Your task to perform on an android device: move a message to another label in the gmail app Image 0: 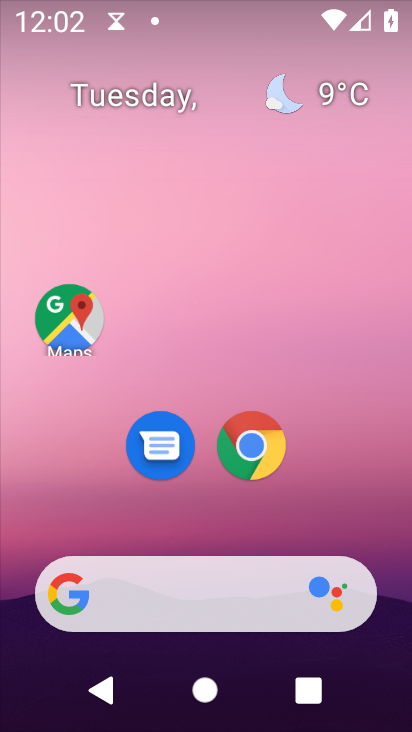
Step 0: drag from (288, 580) to (271, 14)
Your task to perform on an android device: move a message to another label in the gmail app Image 1: 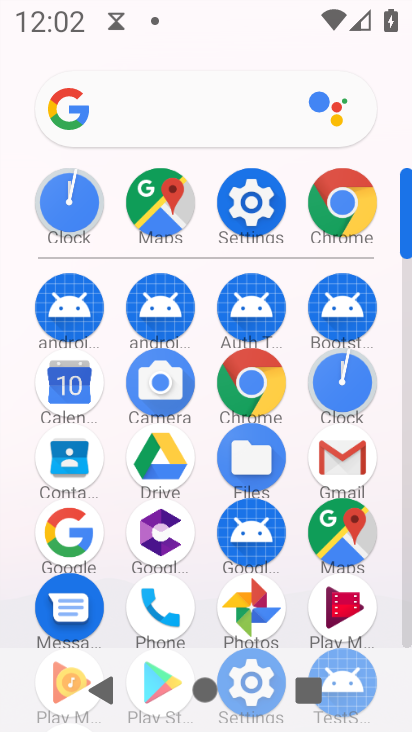
Step 1: click (331, 458)
Your task to perform on an android device: move a message to another label in the gmail app Image 2: 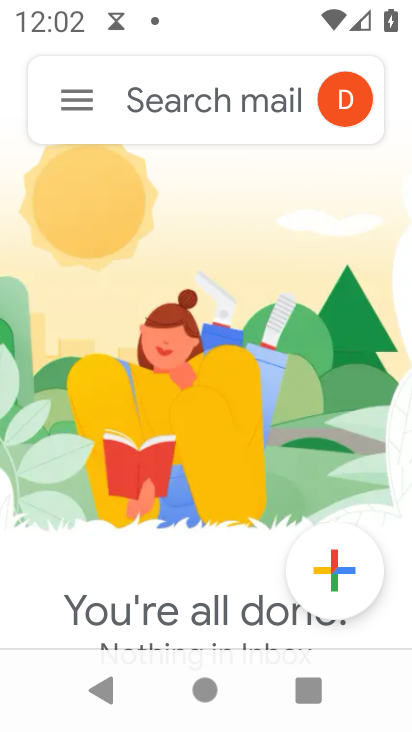
Step 2: click (69, 101)
Your task to perform on an android device: move a message to another label in the gmail app Image 3: 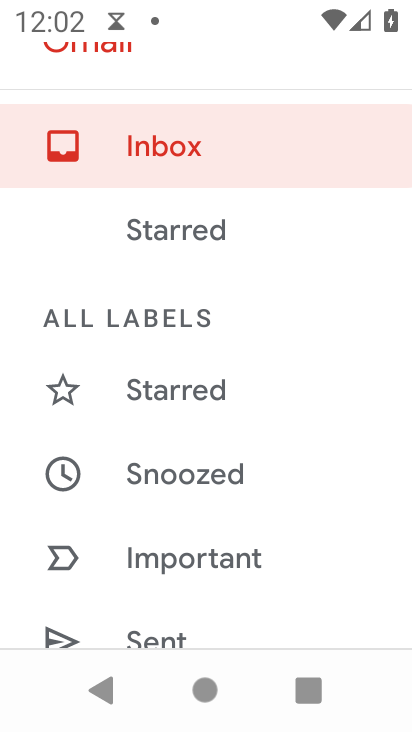
Step 3: drag from (273, 332) to (300, 604)
Your task to perform on an android device: move a message to another label in the gmail app Image 4: 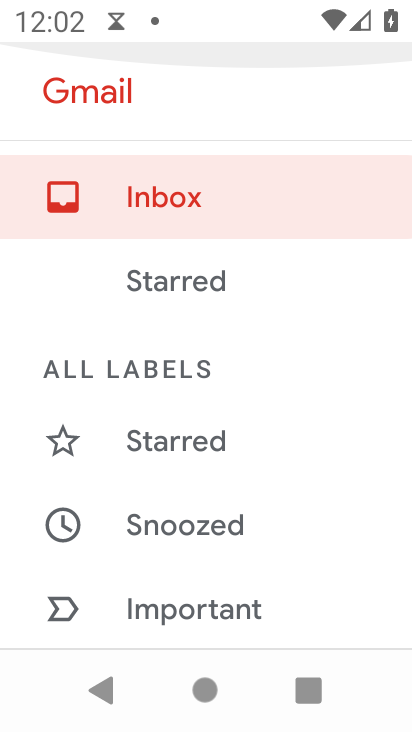
Step 4: drag from (284, 635) to (274, 175)
Your task to perform on an android device: move a message to another label in the gmail app Image 5: 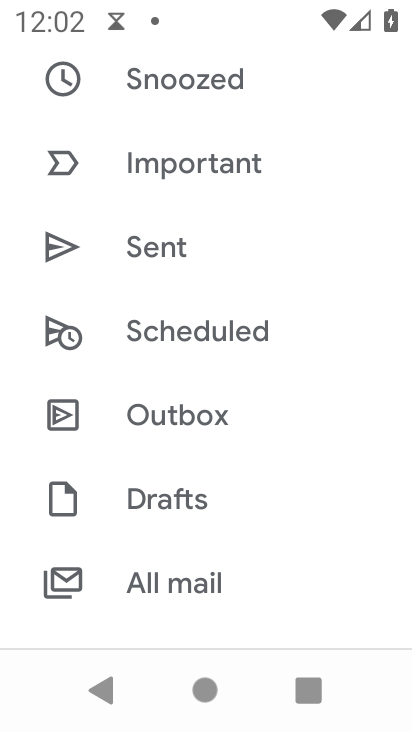
Step 5: click (272, 583)
Your task to perform on an android device: move a message to another label in the gmail app Image 6: 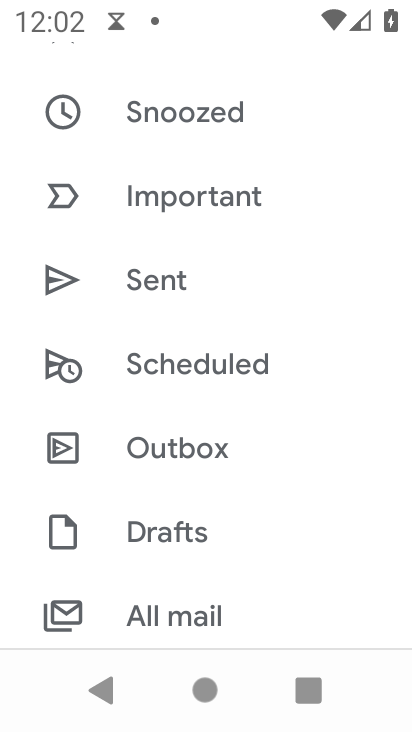
Step 6: drag from (229, 273) to (238, 598)
Your task to perform on an android device: move a message to another label in the gmail app Image 7: 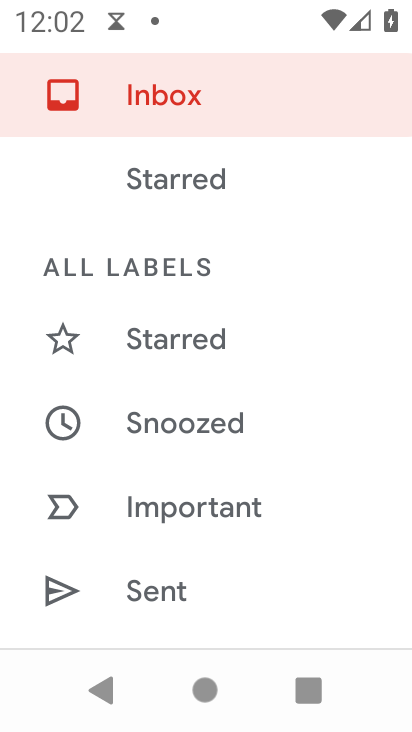
Step 7: click (204, 337)
Your task to perform on an android device: move a message to another label in the gmail app Image 8: 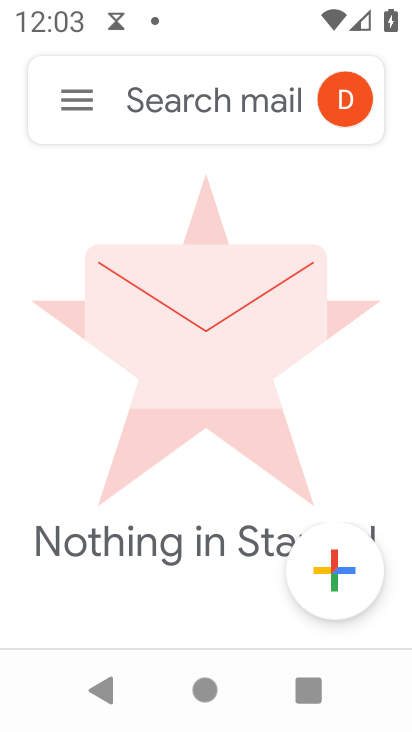
Step 8: task complete